Your task to perform on an android device: turn off javascript in the chrome app Image 0: 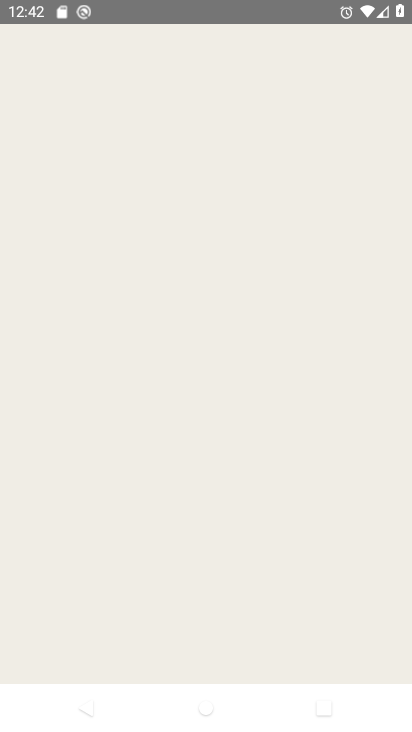
Step 0: drag from (296, 227) to (307, 184)
Your task to perform on an android device: turn off javascript in the chrome app Image 1: 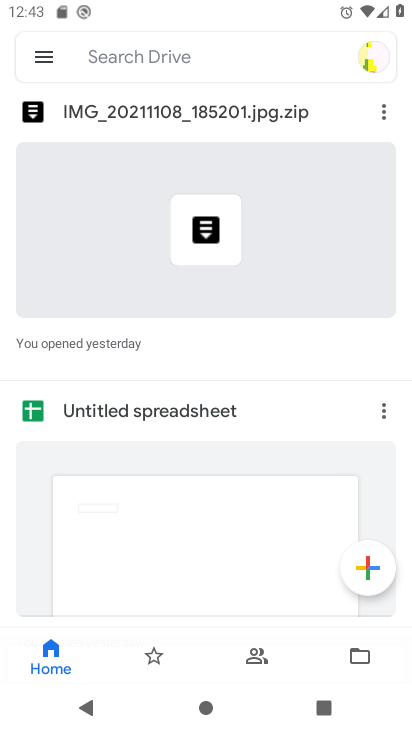
Step 1: press home button
Your task to perform on an android device: turn off javascript in the chrome app Image 2: 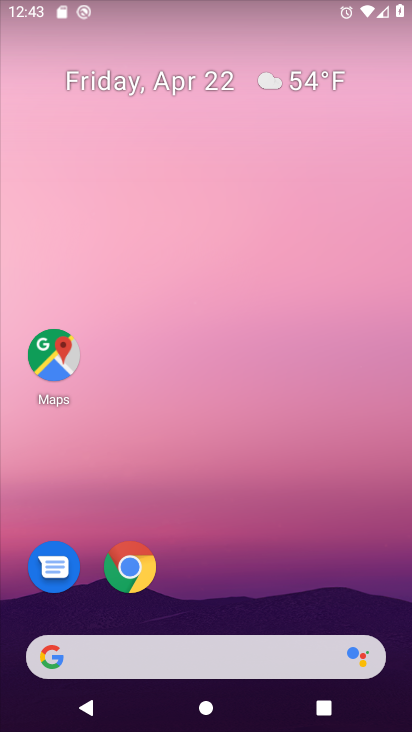
Step 2: click (133, 587)
Your task to perform on an android device: turn off javascript in the chrome app Image 3: 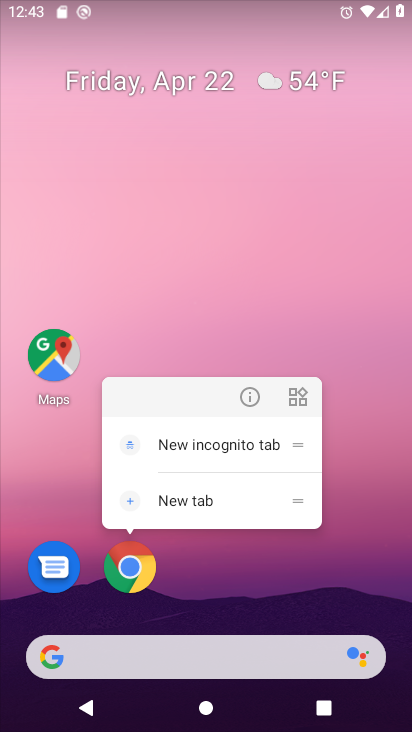
Step 3: click (133, 587)
Your task to perform on an android device: turn off javascript in the chrome app Image 4: 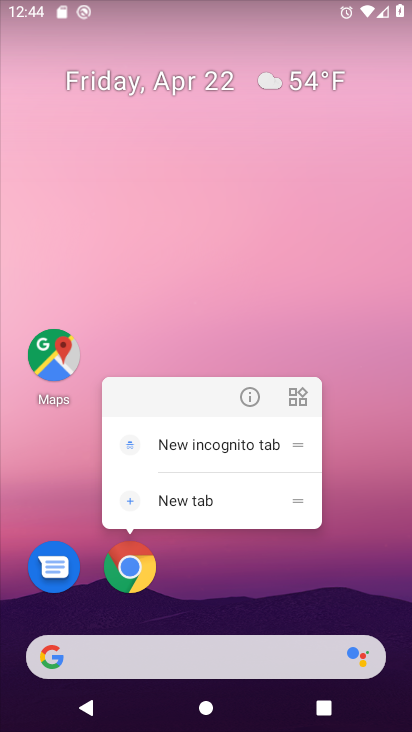
Step 4: click (135, 584)
Your task to perform on an android device: turn off javascript in the chrome app Image 5: 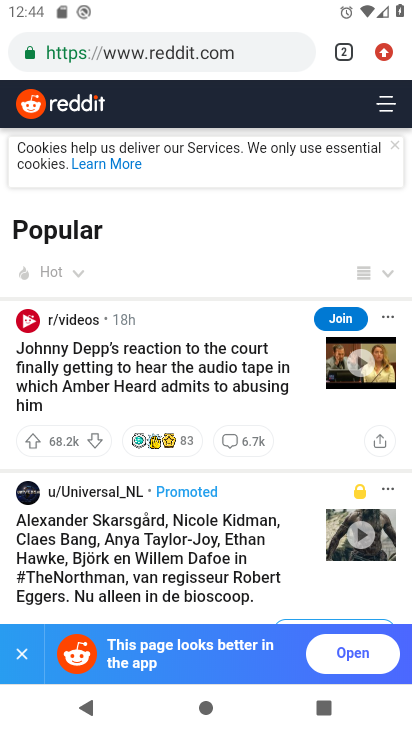
Step 5: click (380, 57)
Your task to perform on an android device: turn off javascript in the chrome app Image 6: 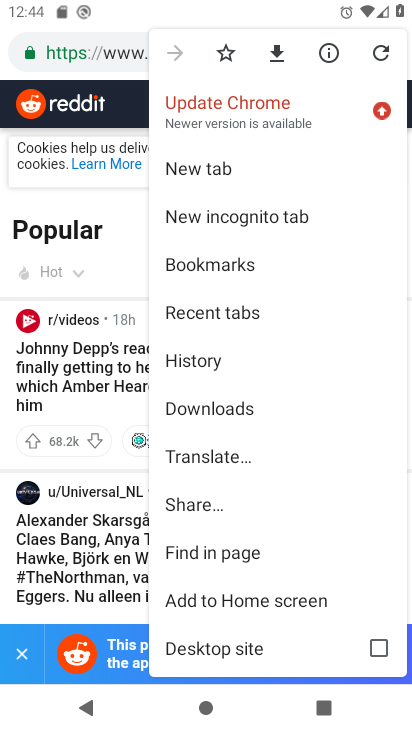
Step 6: drag from (261, 619) to (274, 274)
Your task to perform on an android device: turn off javascript in the chrome app Image 7: 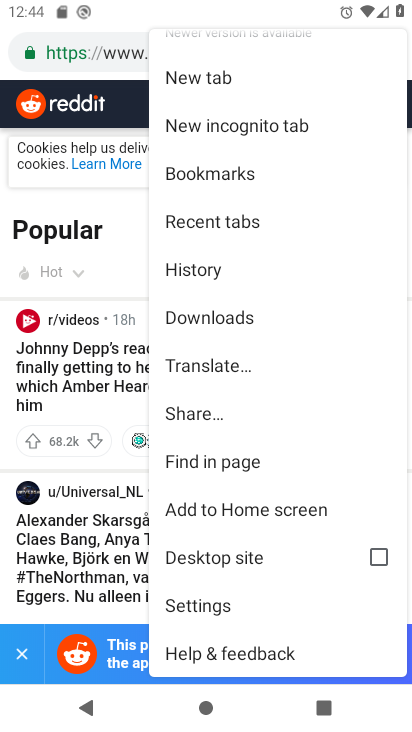
Step 7: click (256, 611)
Your task to perform on an android device: turn off javascript in the chrome app Image 8: 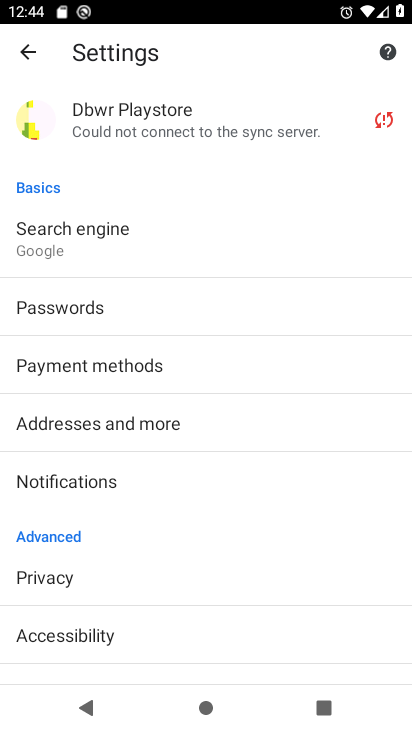
Step 8: drag from (216, 558) to (279, 320)
Your task to perform on an android device: turn off javascript in the chrome app Image 9: 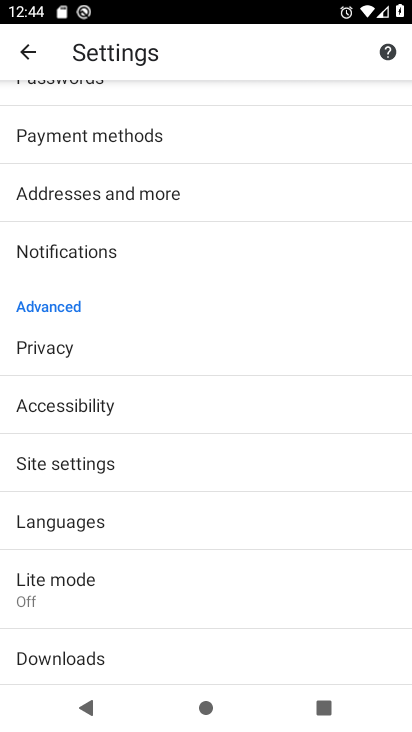
Step 9: click (127, 469)
Your task to perform on an android device: turn off javascript in the chrome app Image 10: 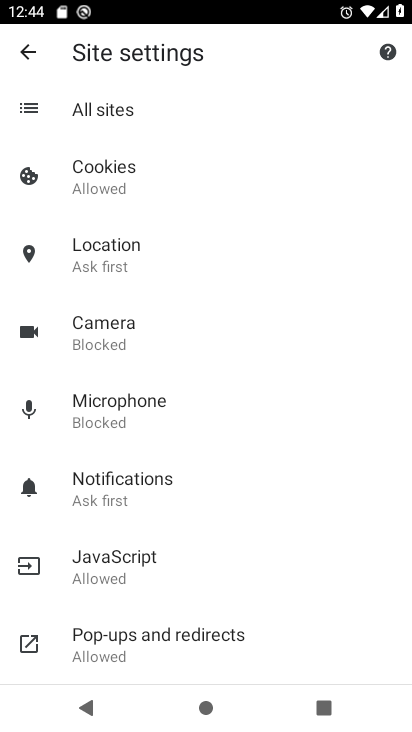
Step 10: click (165, 572)
Your task to perform on an android device: turn off javascript in the chrome app Image 11: 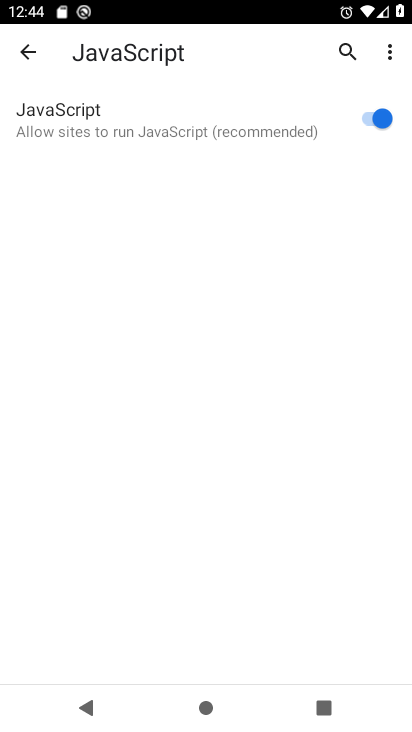
Step 11: click (368, 121)
Your task to perform on an android device: turn off javascript in the chrome app Image 12: 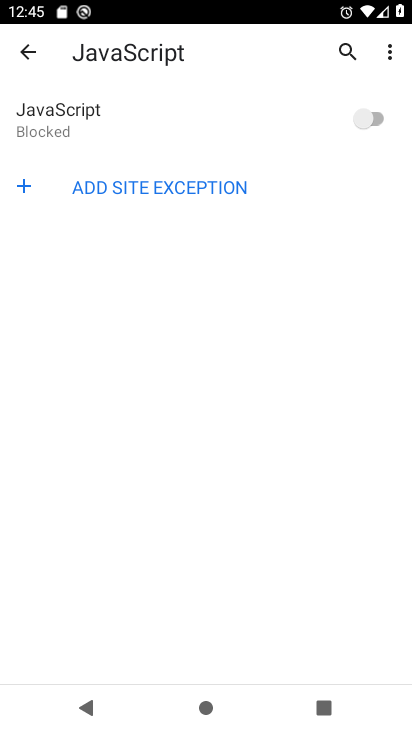
Step 12: task complete